Your task to perform on an android device: Find coffee shops on Maps Image 0: 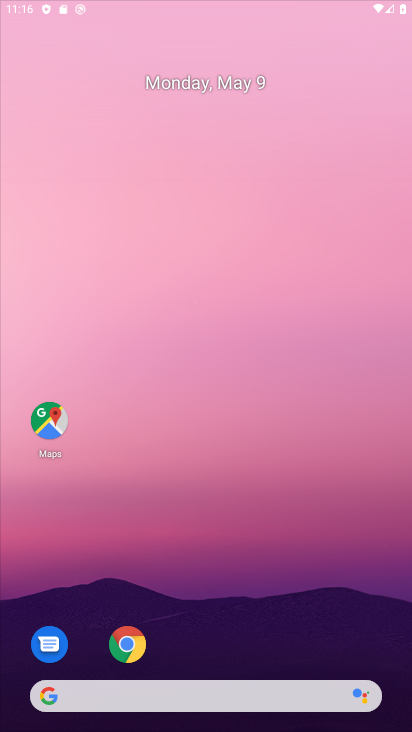
Step 0: click (385, 93)
Your task to perform on an android device: Find coffee shops on Maps Image 1: 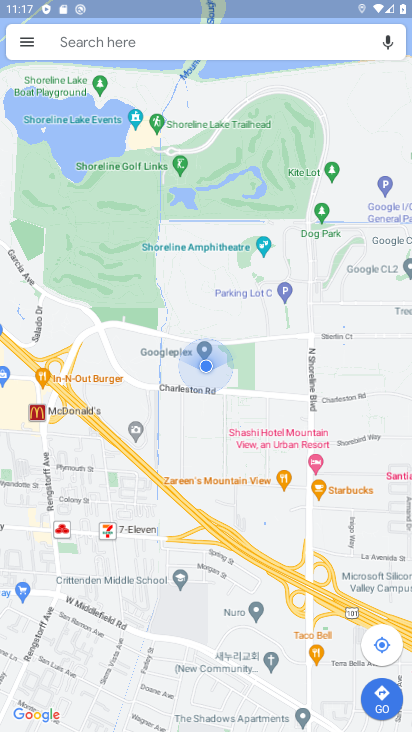
Step 1: click (153, 40)
Your task to perform on an android device: Find coffee shops on Maps Image 2: 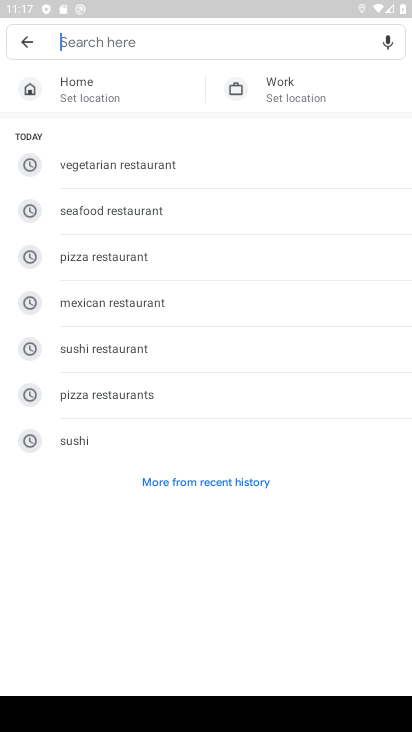
Step 2: type "coffee"
Your task to perform on an android device: Find coffee shops on Maps Image 3: 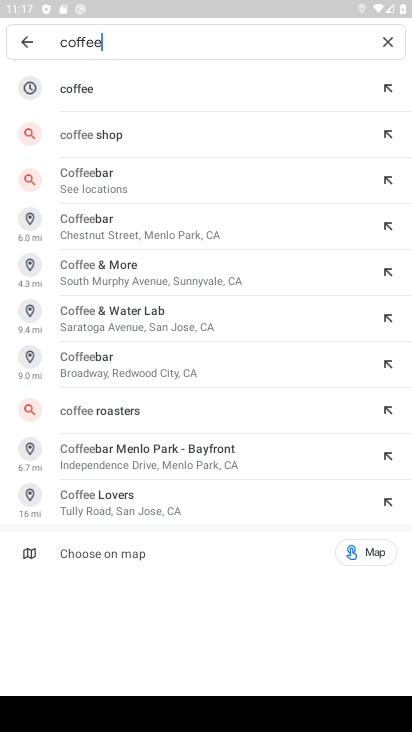
Step 3: click (117, 86)
Your task to perform on an android device: Find coffee shops on Maps Image 4: 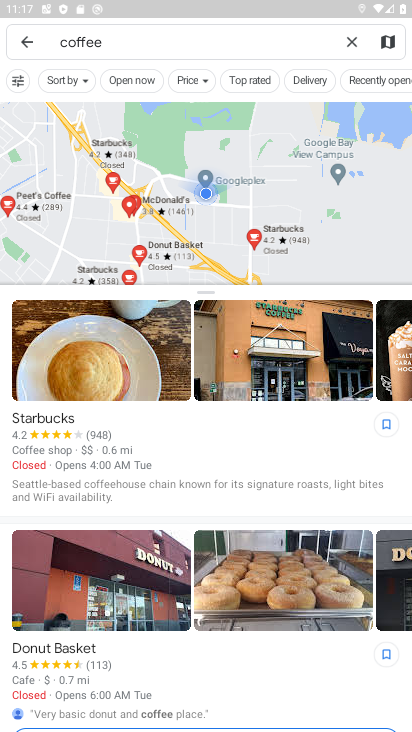
Step 4: task complete